Your task to perform on an android device: Show me the alarms in the clock app Image 0: 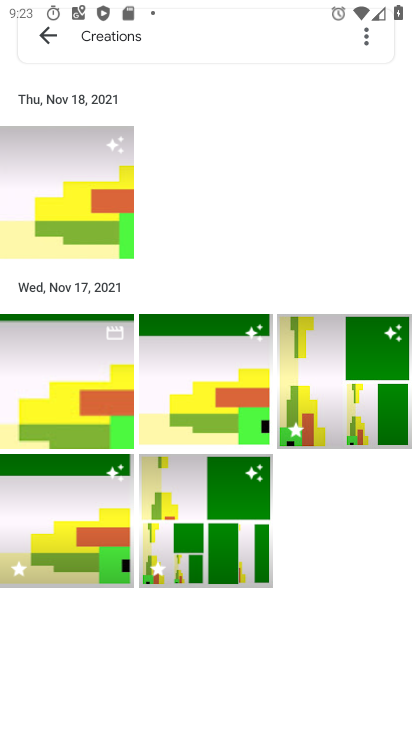
Step 0: press home button
Your task to perform on an android device: Show me the alarms in the clock app Image 1: 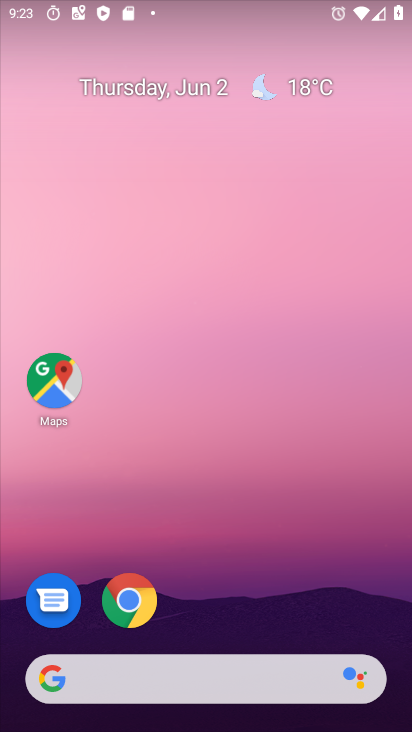
Step 1: drag from (369, 610) to (380, 254)
Your task to perform on an android device: Show me the alarms in the clock app Image 2: 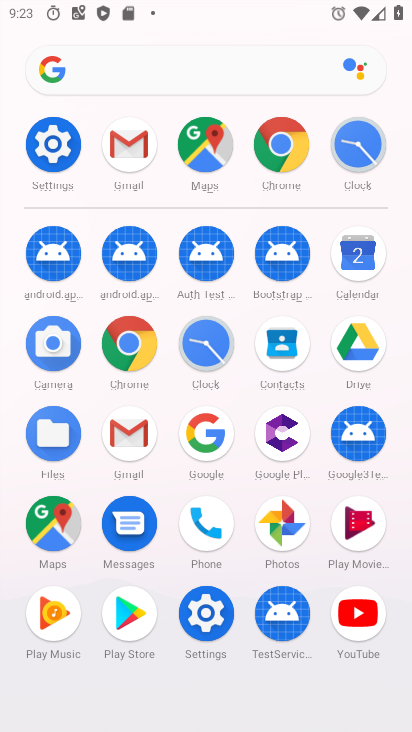
Step 2: click (211, 348)
Your task to perform on an android device: Show me the alarms in the clock app Image 3: 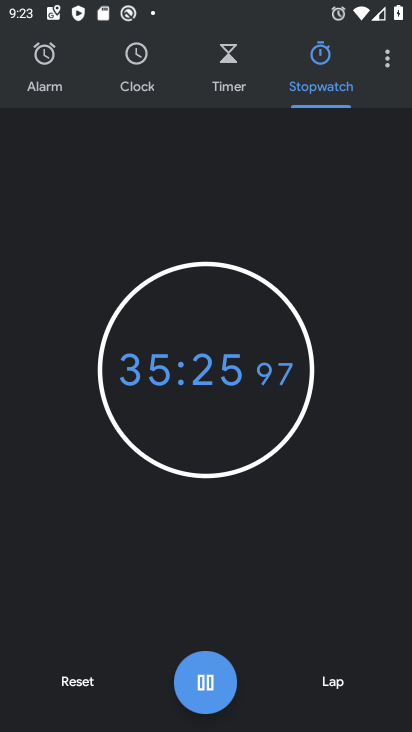
Step 3: click (38, 89)
Your task to perform on an android device: Show me the alarms in the clock app Image 4: 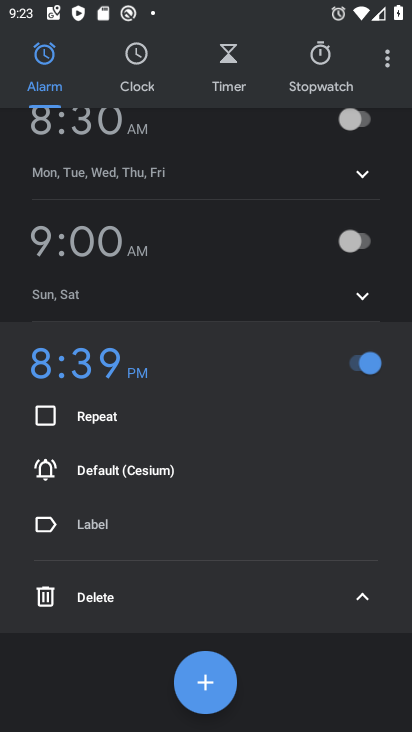
Step 4: task complete